Your task to perform on an android device: change keyboard looks Image 0: 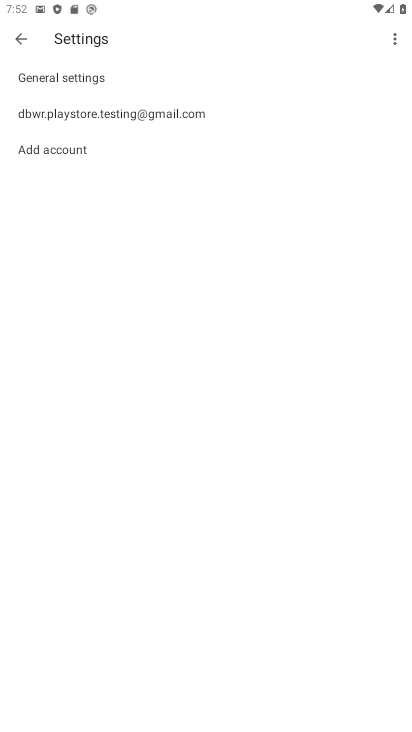
Step 0: press home button
Your task to perform on an android device: change keyboard looks Image 1: 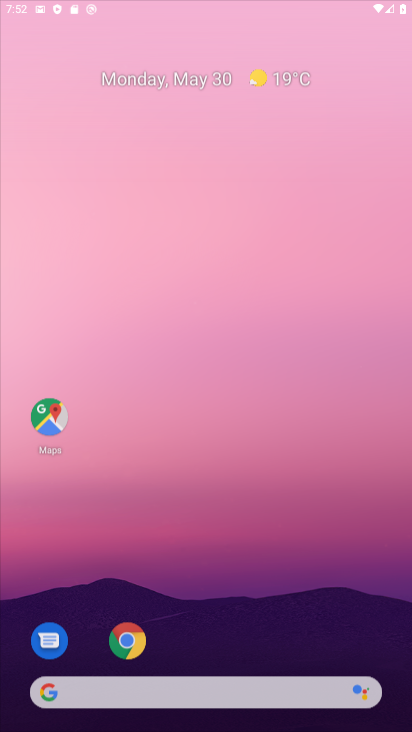
Step 1: drag from (308, 525) to (406, 149)
Your task to perform on an android device: change keyboard looks Image 2: 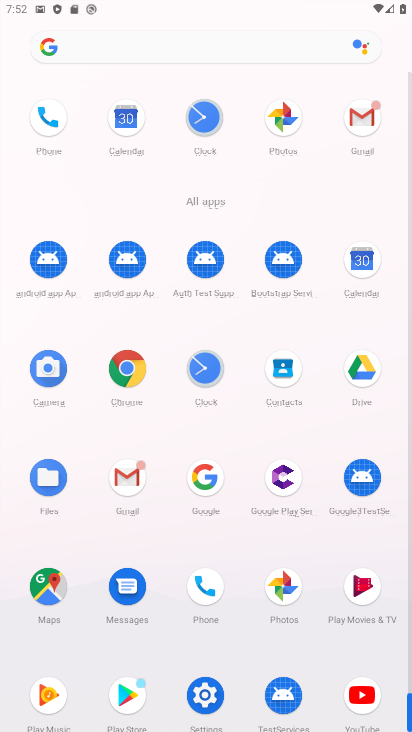
Step 2: click (200, 694)
Your task to perform on an android device: change keyboard looks Image 3: 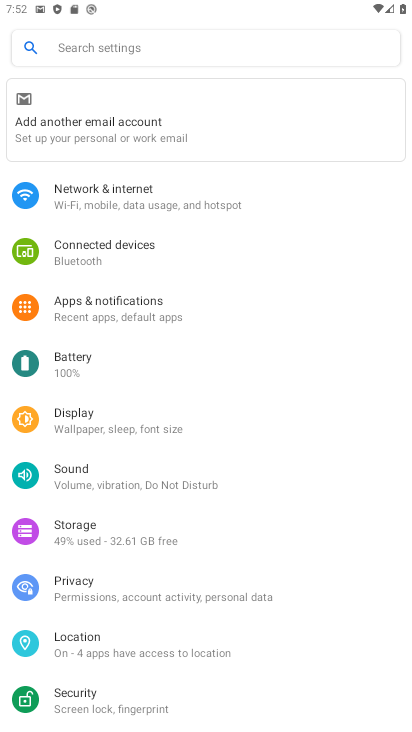
Step 3: drag from (133, 626) to (381, 91)
Your task to perform on an android device: change keyboard looks Image 4: 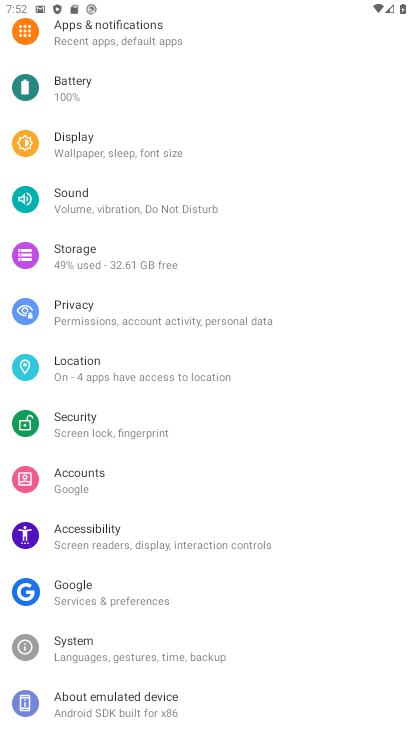
Step 4: click (84, 651)
Your task to perform on an android device: change keyboard looks Image 5: 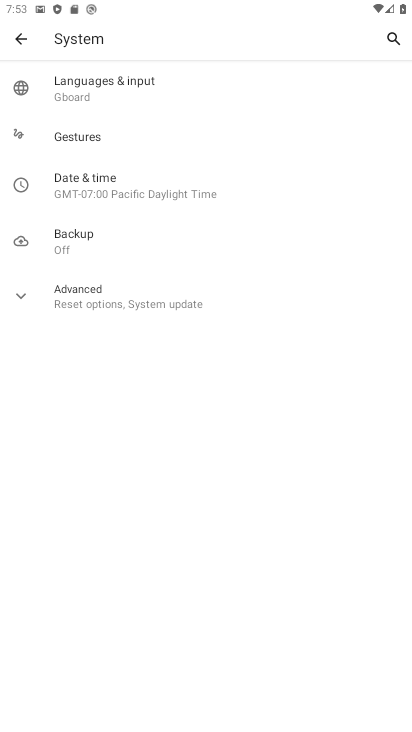
Step 5: click (121, 84)
Your task to perform on an android device: change keyboard looks Image 6: 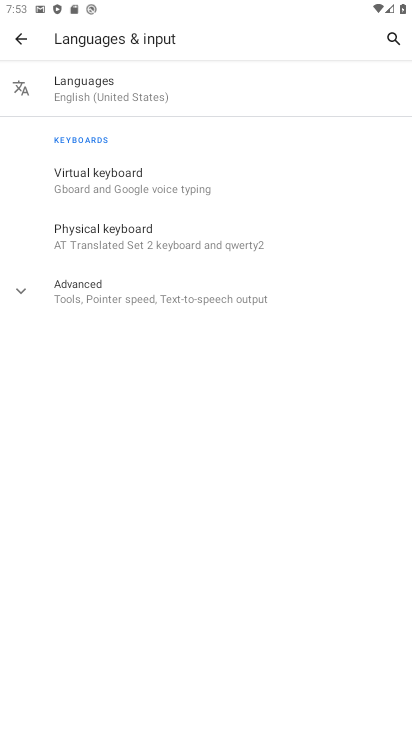
Step 6: click (115, 173)
Your task to perform on an android device: change keyboard looks Image 7: 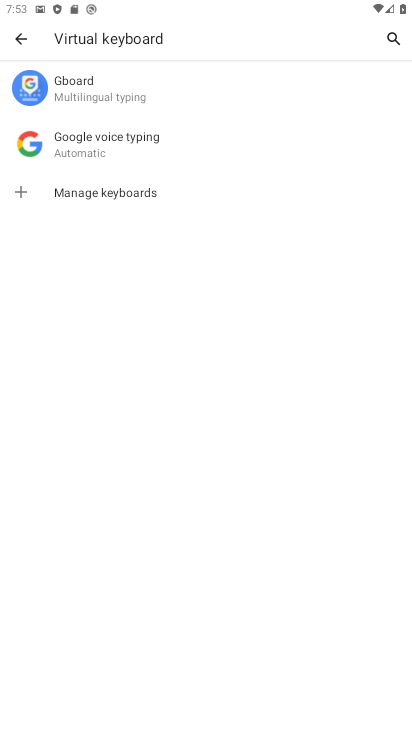
Step 7: click (104, 91)
Your task to perform on an android device: change keyboard looks Image 8: 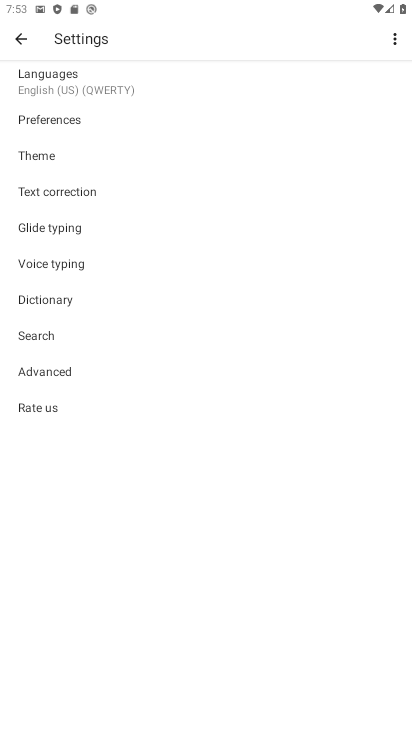
Step 8: drag from (197, 357) to (228, 135)
Your task to perform on an android device: change keyboard looks Image 9: 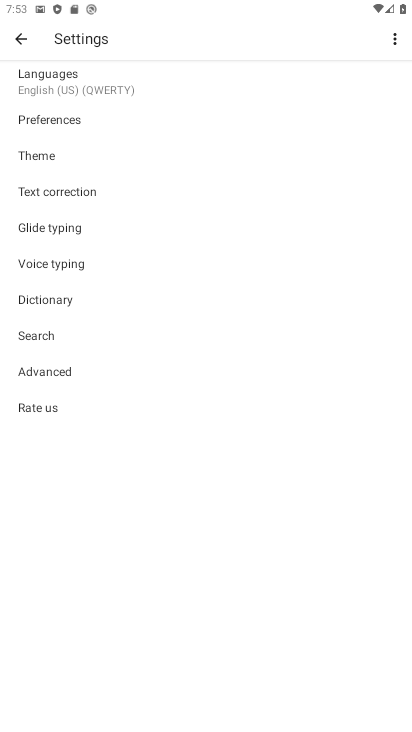
Step 9: click (70, 148)
Your task to perform on an android device: change keyboard looks Image 10: 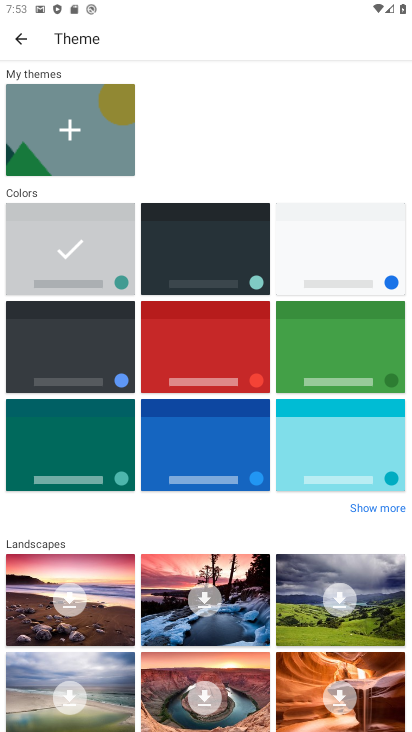
Step 10: click (245, 233)
Your task to perform on an android device: change keyboard looks Image 11: 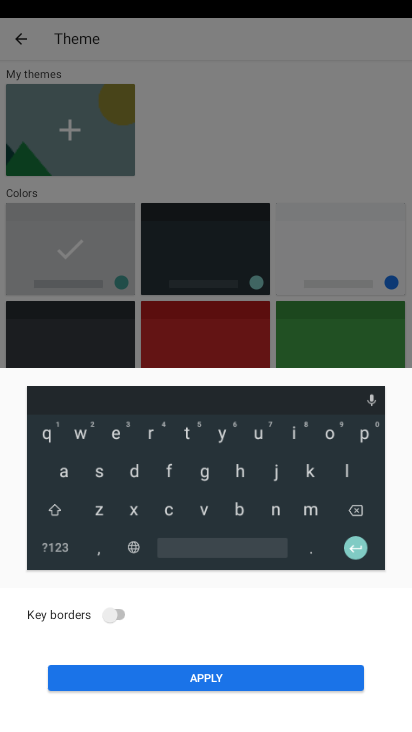
Step 11: click (188, 678)
Your task to perform on an android device: change keyboard looks Image 12: 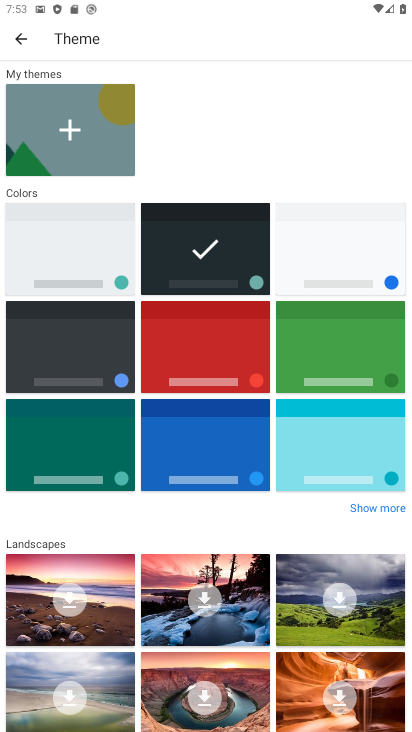
Step 12: task complete